Your task to perform on an android device: turn off location history Image 0: 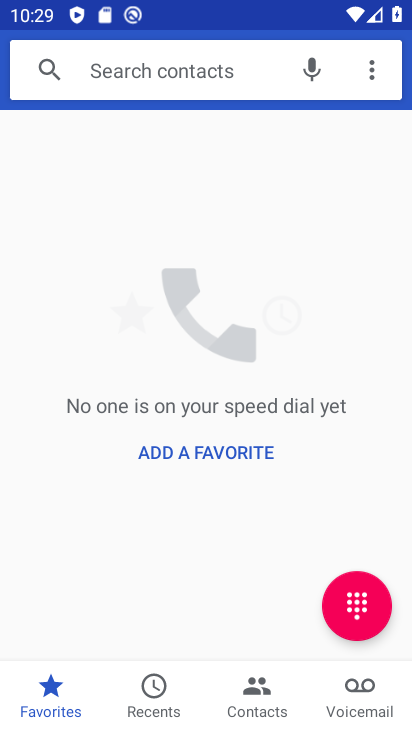
Step 0: press home button
Your task to perform on an android device: turn off location history Image 1: 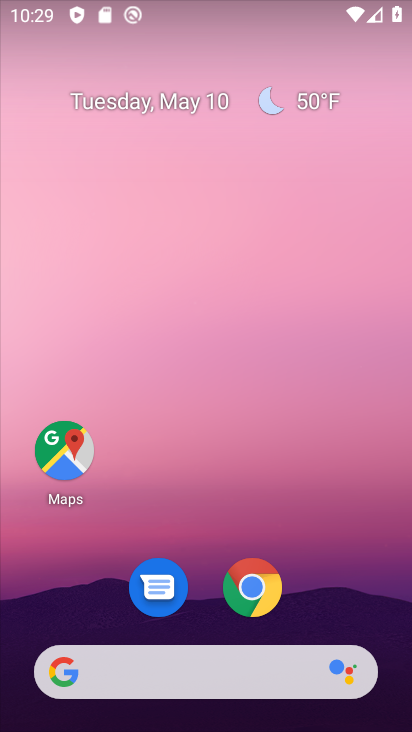
Step 1: drag from (222, 640) to (146, 9)
Your task to perform on an android device: turn off location history Image 2: 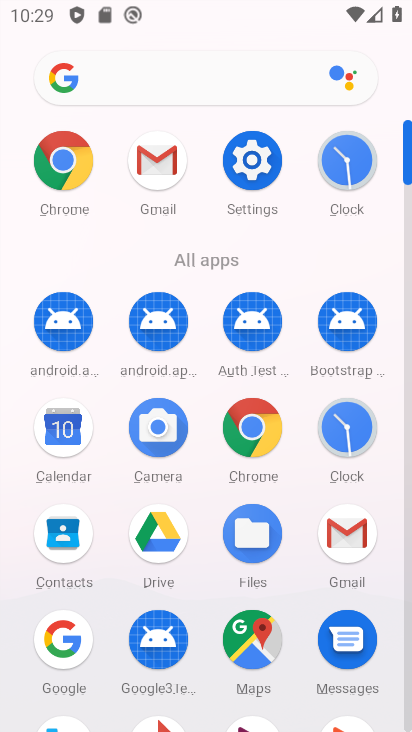
Step 2: click (253, 182)
Your task to perform on an android device: turn off location history Image 3: 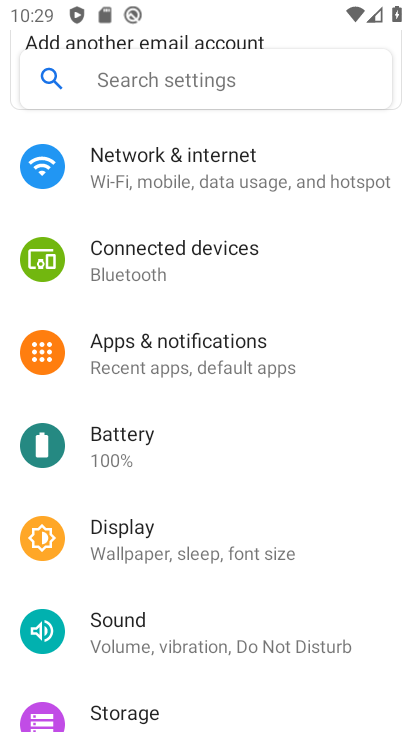
Step 3: drag from (225, 536) to (189, 167)
Your task to perform on an android device: turn off location history Image 4: 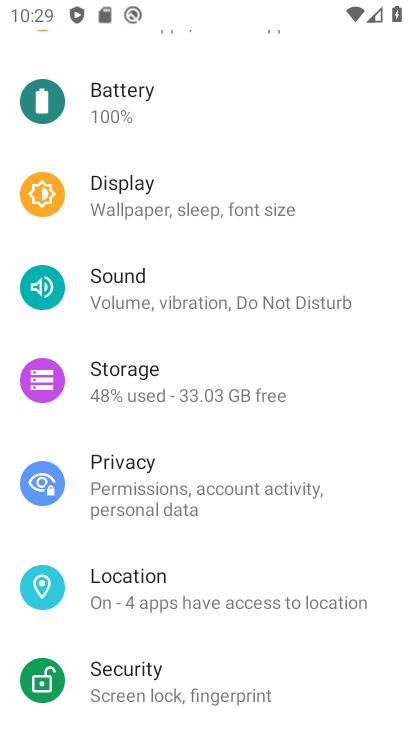
Step 4: click (140, 572)
Your task to perform on an android device: turn off location history Image 5: 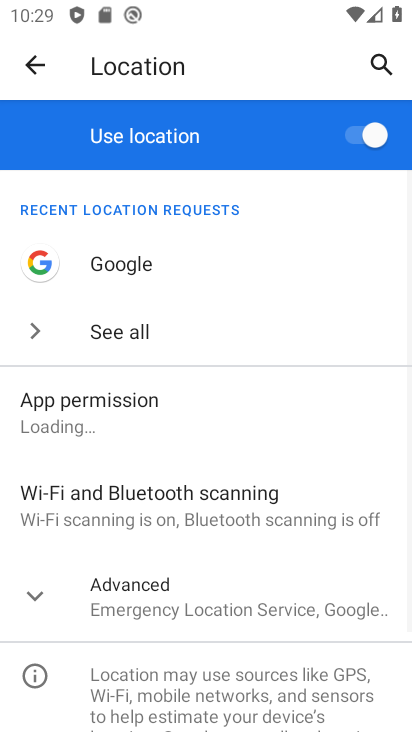
Step 5: click (365, 129)
Your task to perform on an android device: turn off location history Image 6: 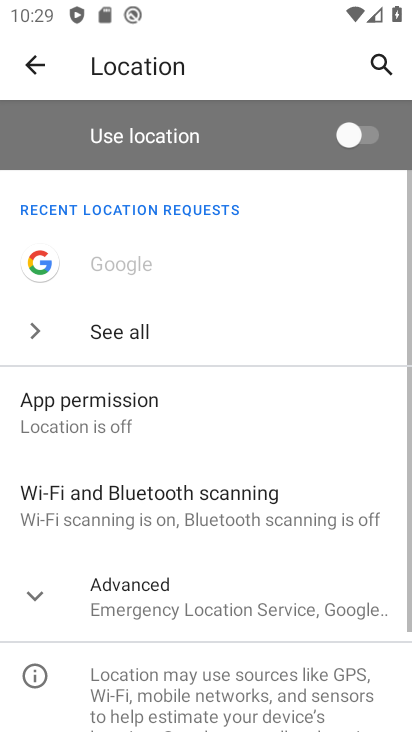
Step 6: task complete